Your task to perform on an android device: Look up the best rated gaming chair on Best Buy Image 0: 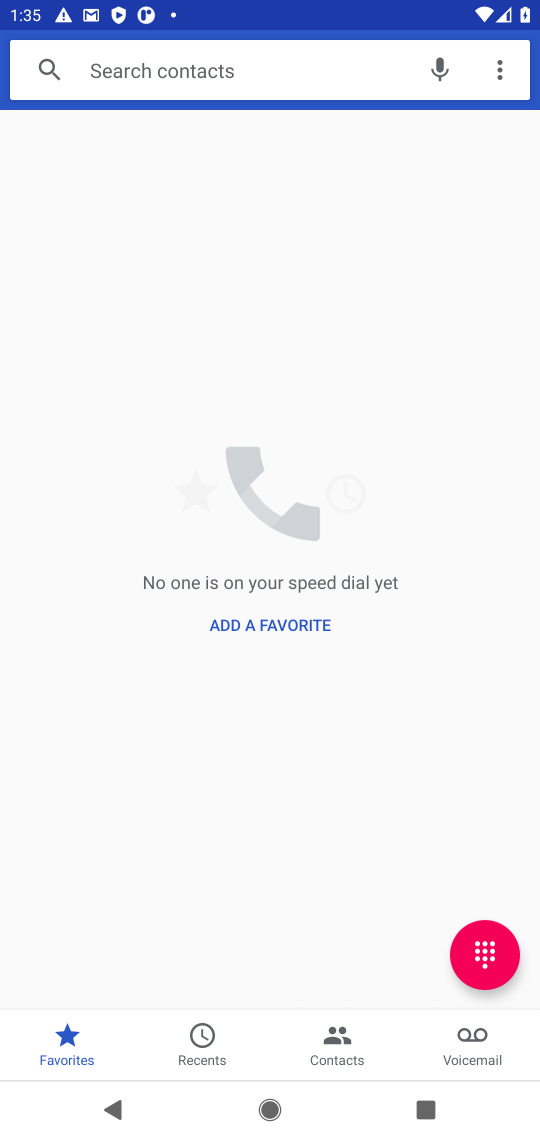
Step 0: press home button
Your task to perform on an android device: Look up the best rated gaming chair on Best Buy Image 1: 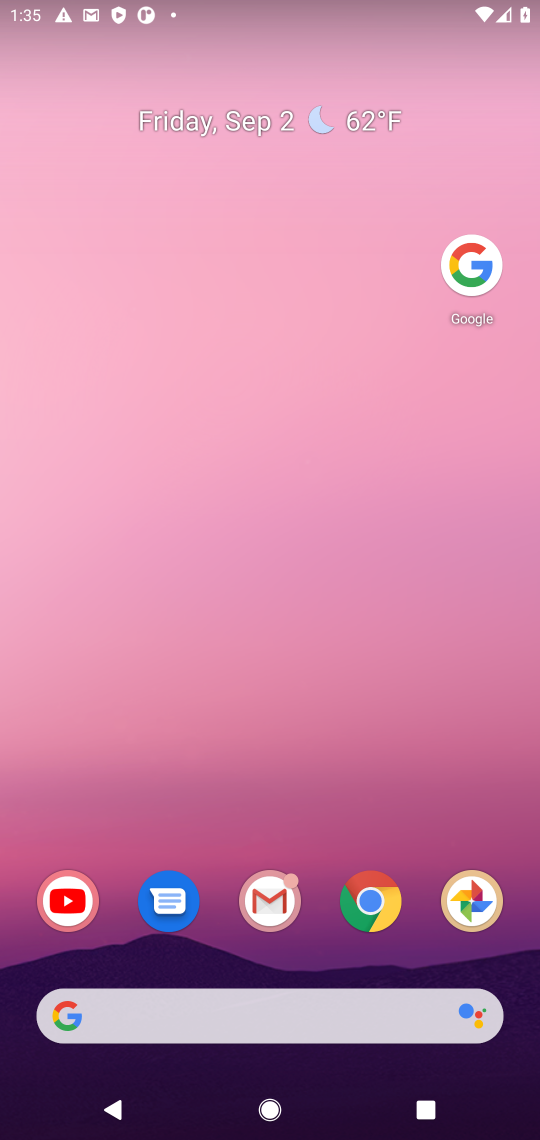
Step 1: drag from (240, 809) to (272, 386)
Your task to perform on an android device: Look up the best rated gaming chair on Best Buy Image 2: 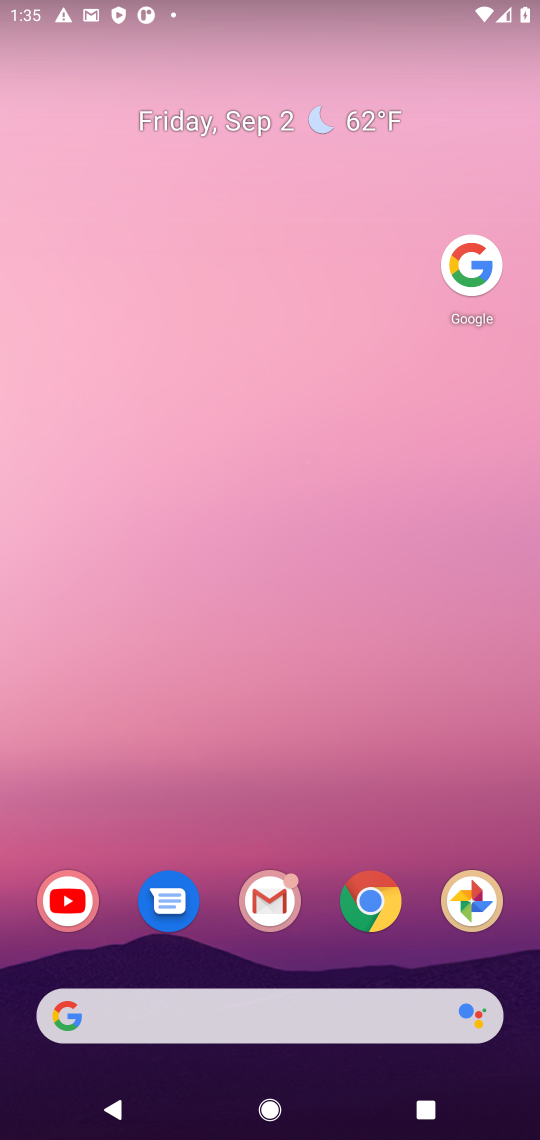
Step 2: click (472, 252)
Your task to perform on an android device: Look up the best rated gaming chair on Best Buy Image 3: 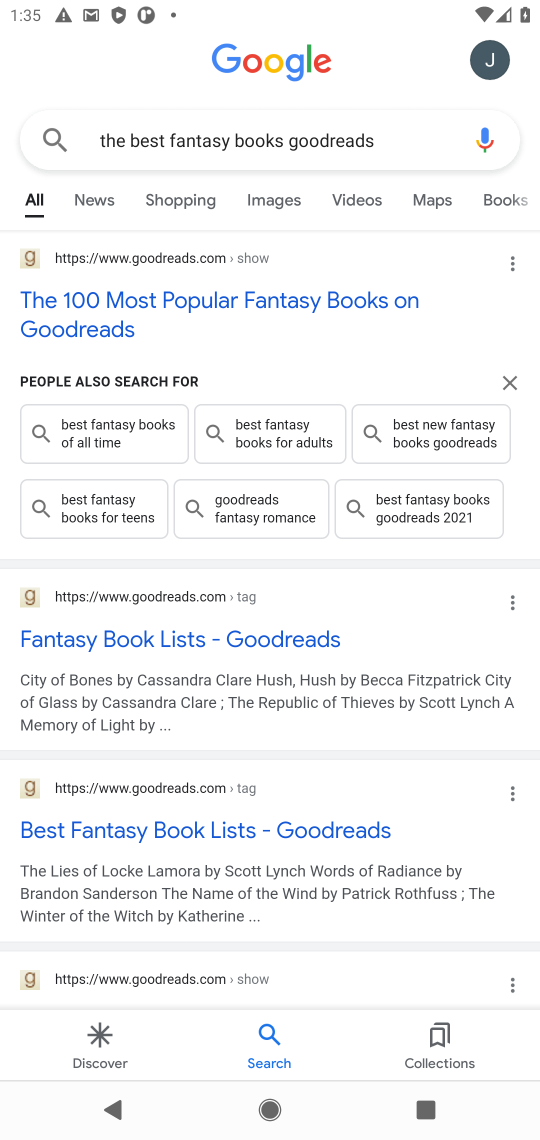
Step 3: click (410, 144)
Your task to perform on an android device: Look up the best rated gaming chair on Best Buy Image 4: 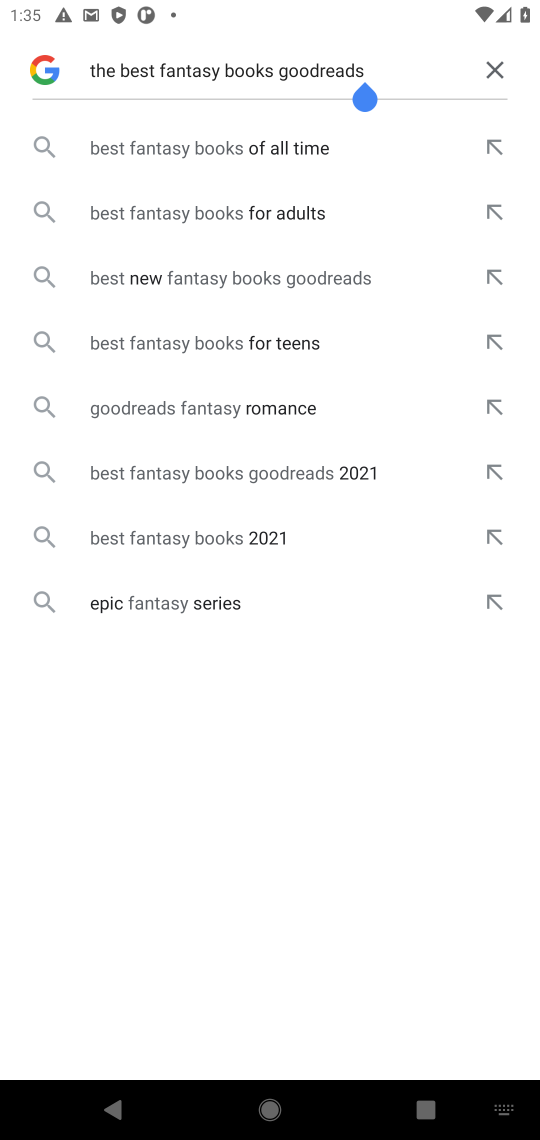
Step 4: click (490, 67)
Your task to perform on an android device: Look up the best rated gaming chair on Best Buy Image 5: 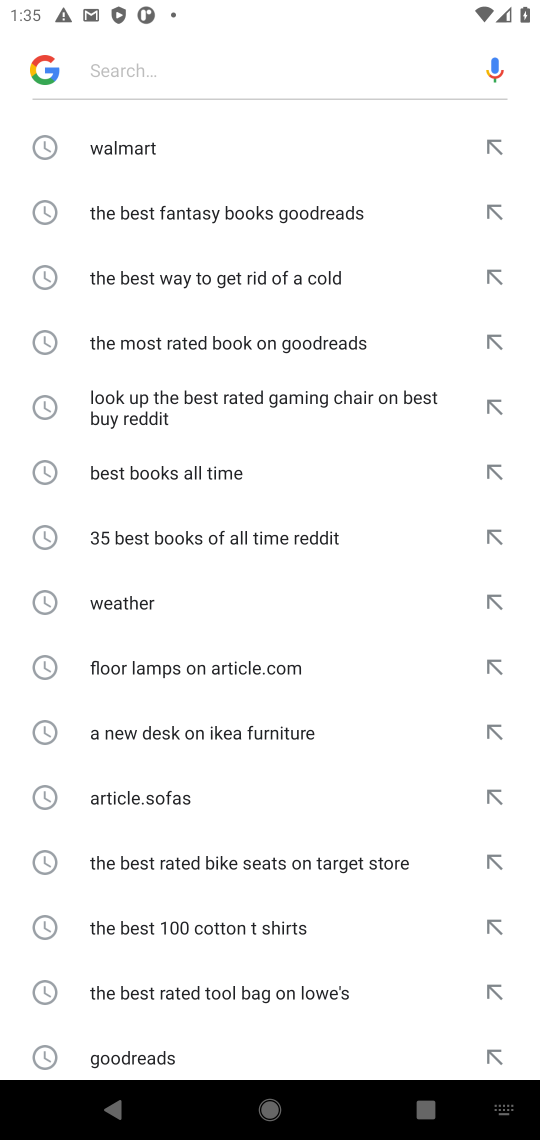
Step 5: click (262, 64)
Your task to perform on an android device: Look up the best rated gaming chair on Best Buy Image 6: 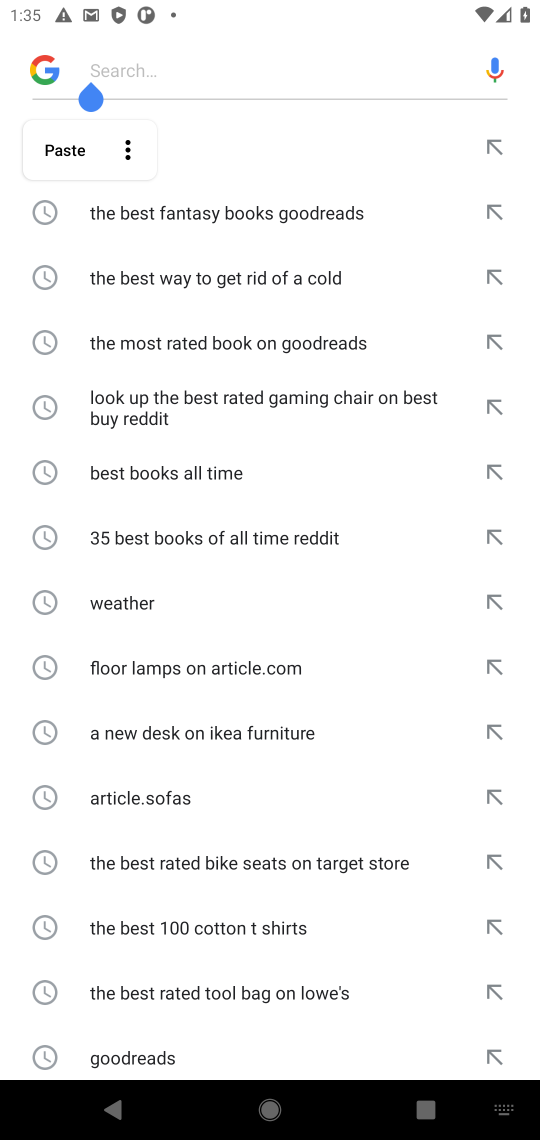
Step 6: type " the best rated gaming chair on Best Buy "
Your task to perform on an android device: Look up the best rated gaming chair on Best Buy Image 7: 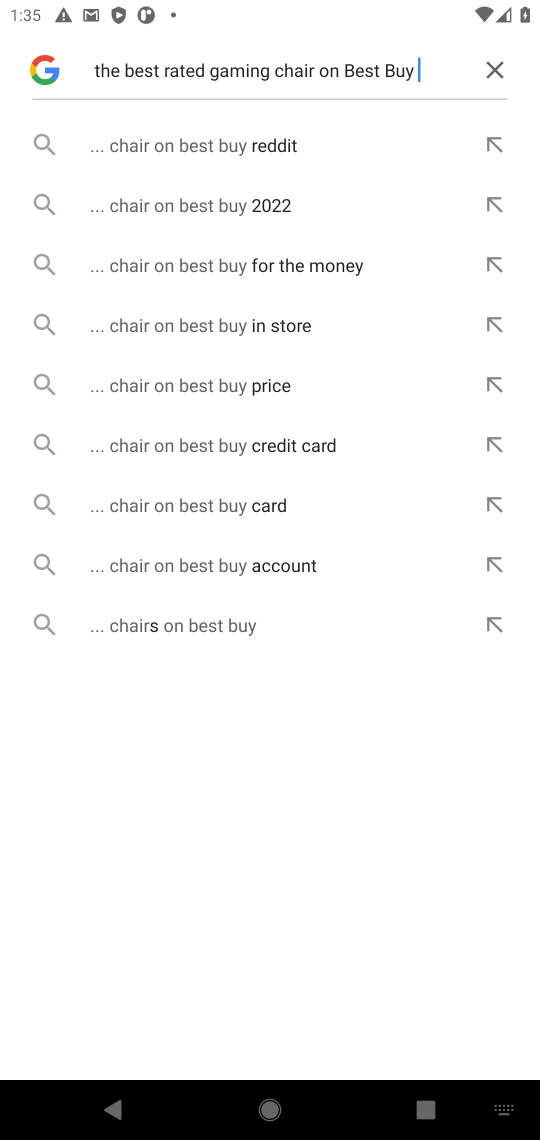
Step 7: click (198, 615)
Your task to perform on an android device: Look up the best rated gaming chair on Best Buy Image 8: 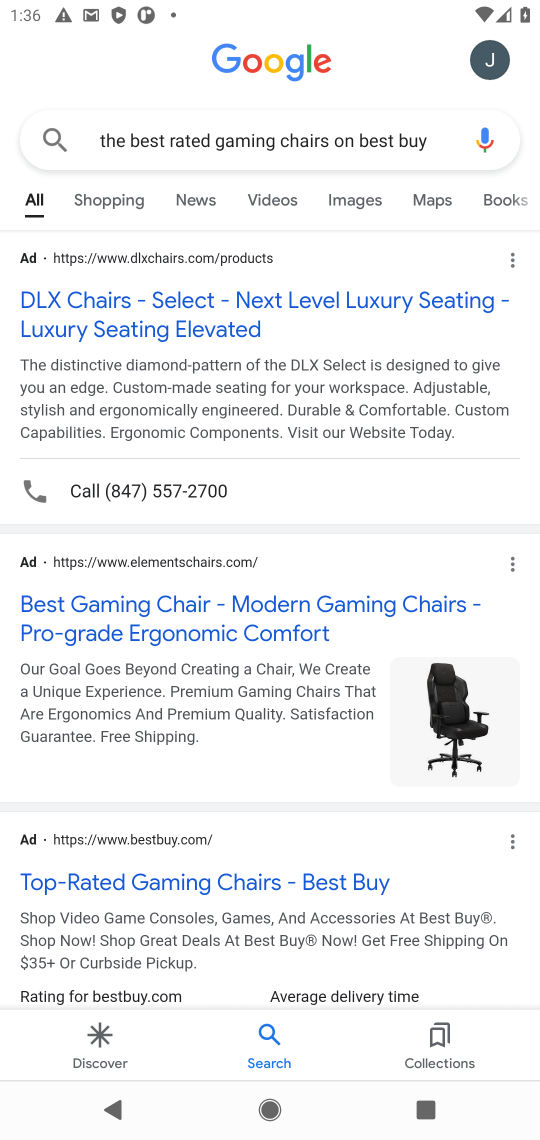
Step 8: click (165, 333)
Your task to perform on an android device: Look up the best rated gaming chair on Best Buy Image 9: 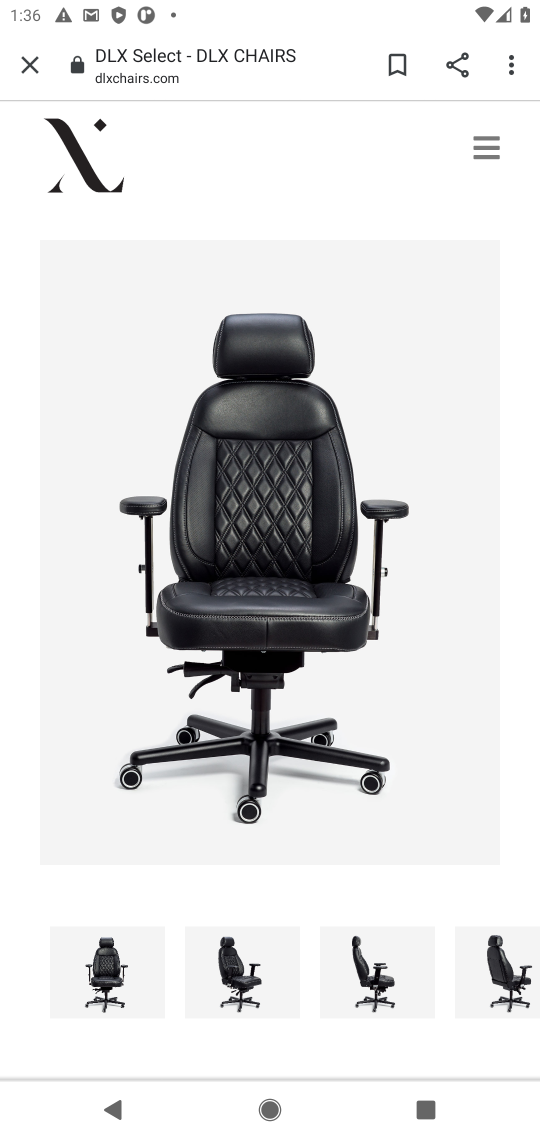
Step 9: task complete